Your task to perform on an android device: change notification settings in the gmail app Image 0: 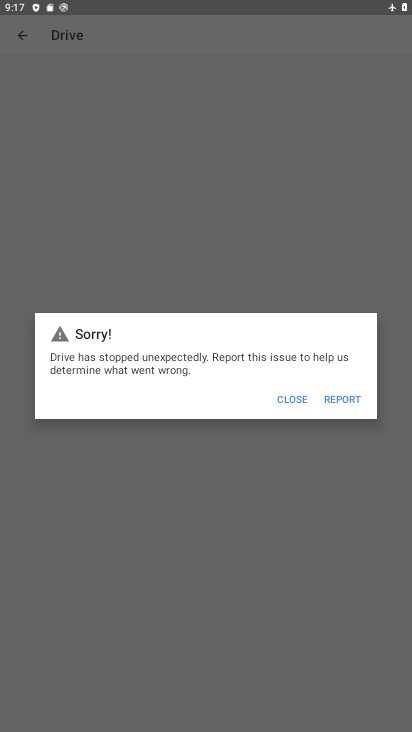
Step 0: press home button
Your task to perform on an android device: change notification settings in the gmail app Image 1: 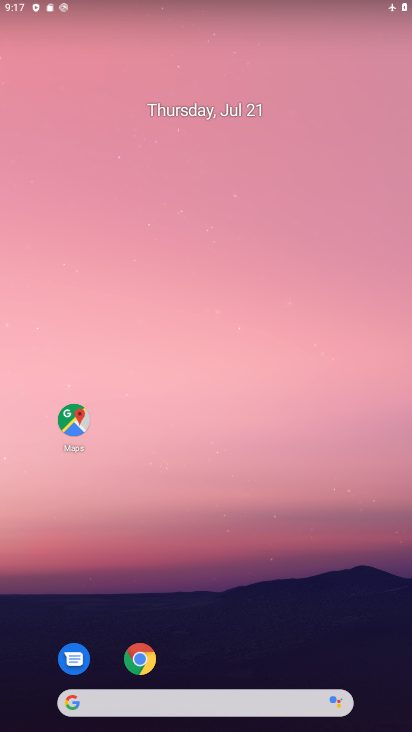
Step 1: drag from (238, 701) to (227, 158)
Your task to perform on an android device: change notification settings in the gmail app Image 2: 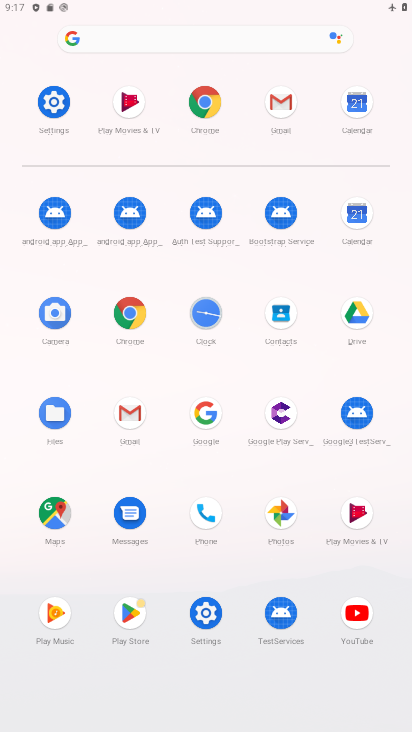
Step 2: click (135, 416)
Your task to perform on an android device: change notification settings in the gmail app Image 3: 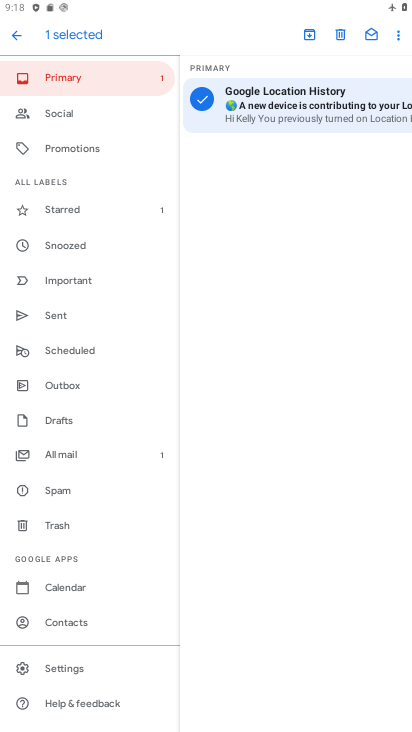
Step 3: click (70, 669)
Your task to perform on an android device: change notification settings in the gmail app Image 4: 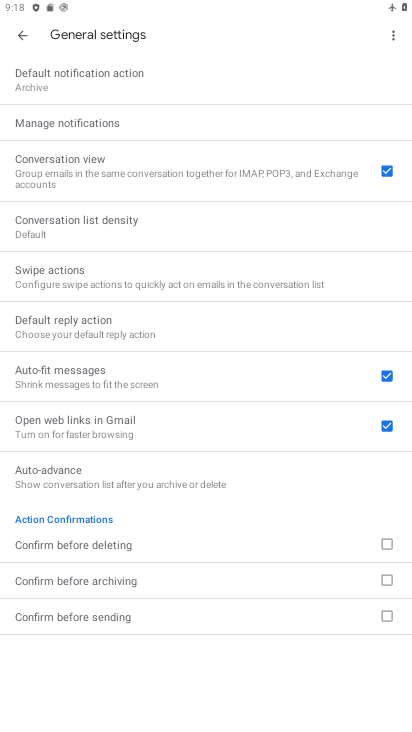
Step 4: click (56, 126)
Your task to perform on an android device: change notification settings in the gmail app Image 5: 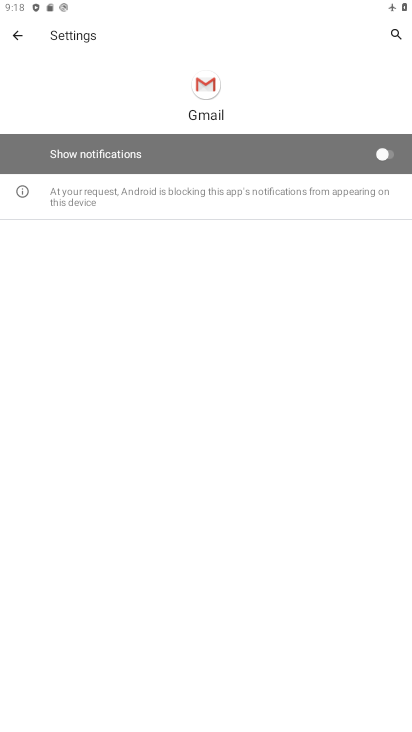
Step 5: click (390, 164)
Your task to perform on an android device: change notification settings in the gmail app Image 6: 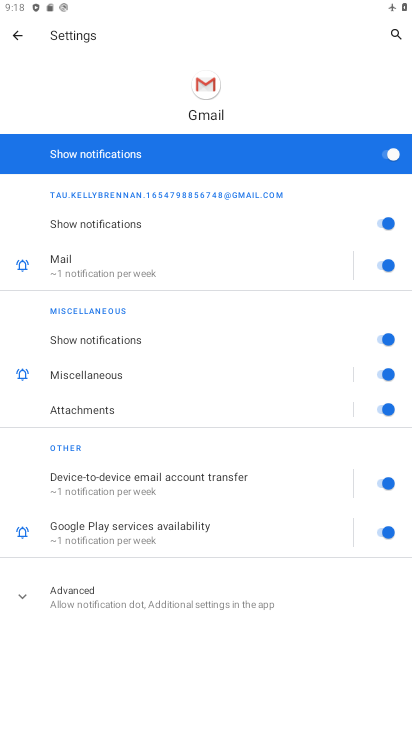
Step 6: task complete